Your task to perform on an android device: turn smart compose on in the gmail app Image 0: 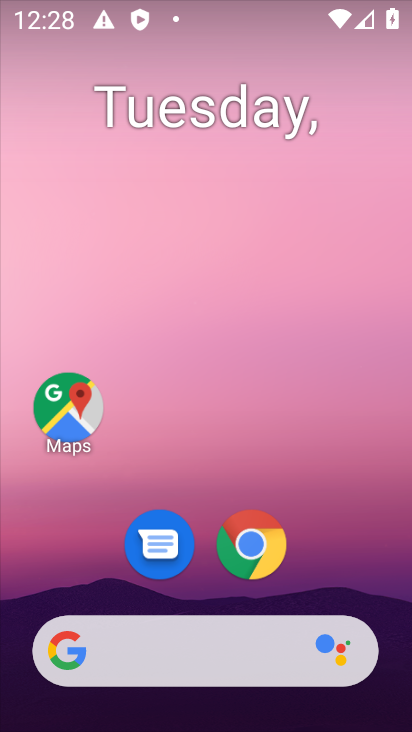
Step 0: drag from (291, 517) to (259, 12)
Your task to perform on an android device: turn smart compose on in the gmail app Image 1: 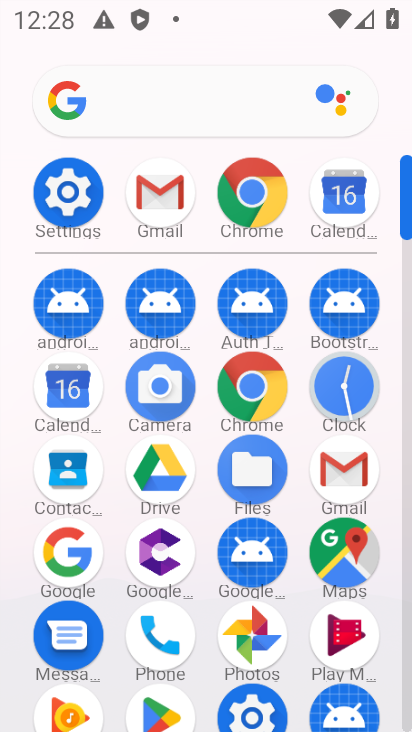
Step 1: click (348, 461)
Your task to perform on an android device: turn smart compose on in the gmail app Image 2: 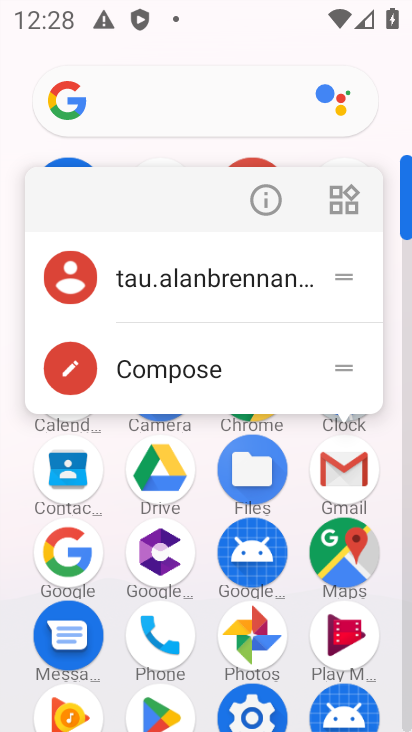
Step 2: click (344, 453)
Your task to perform on an android device: turn smart compose on in the gmail app Image 3: 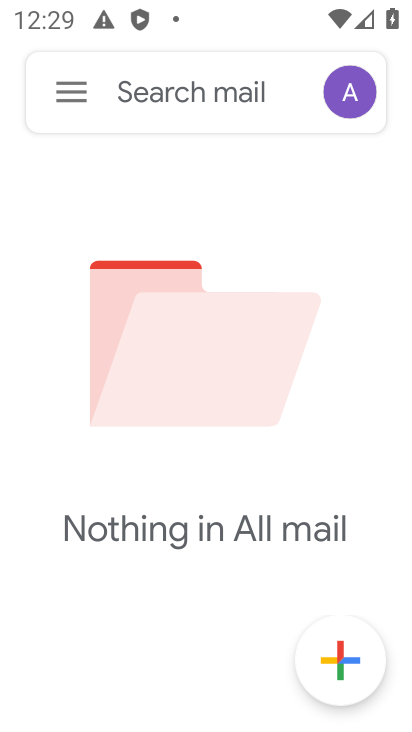
Step 3: click (76, 77)
Your task to perform on an android device: turn smart compose on in the gmail app Image 4: 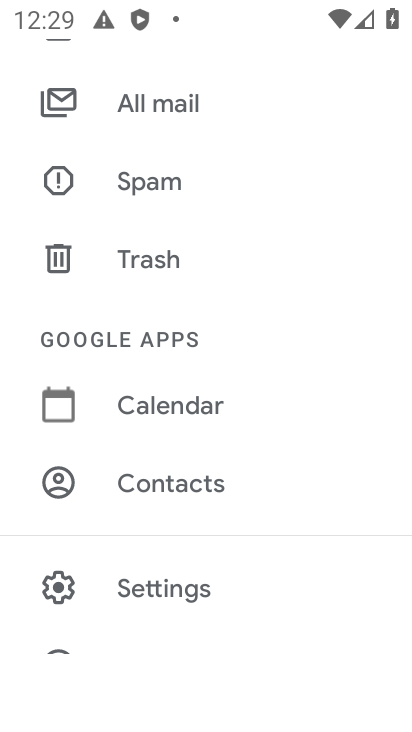
Step 4: drag from (240, 565) to (319, 35)
Your task to perform on an android device: turn smart compose on in the gmail app Image 5: 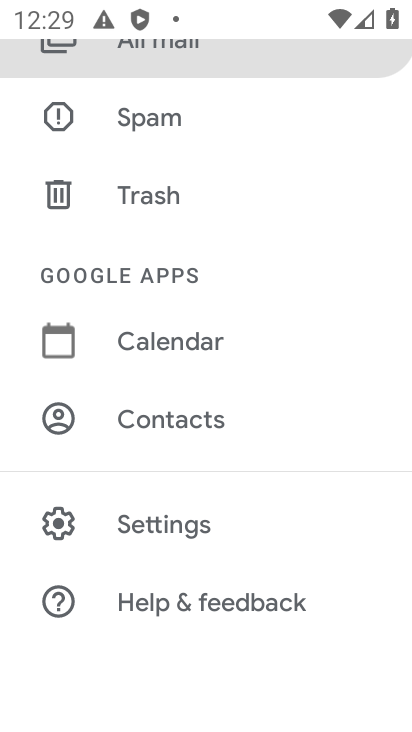
Step 5: click (170, 528)
Your task to perform on an android device: turn smart compose on in the gmail app Image 6: 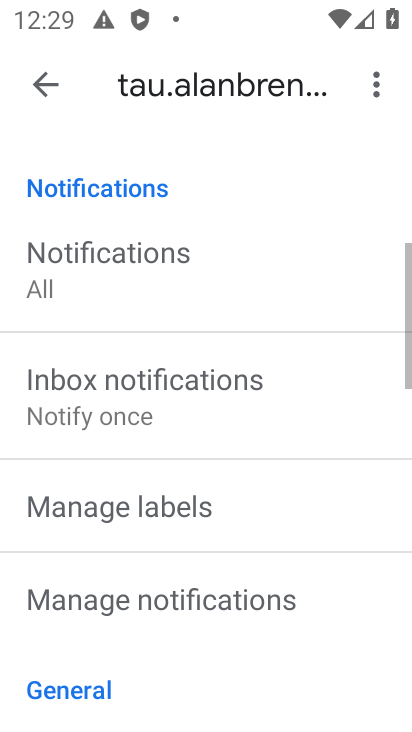
Step 6: task complete